Your task to perform on an android device: Set the phone to "Do not disturb". Image 0: 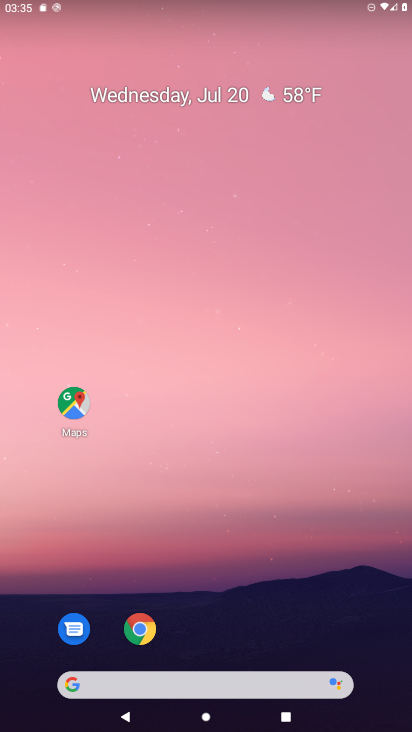
Step 0: drag from (382, 0) to (10, 71)
Your task to perform on an android device: Set the phone to "Do not disturb". Image 1: 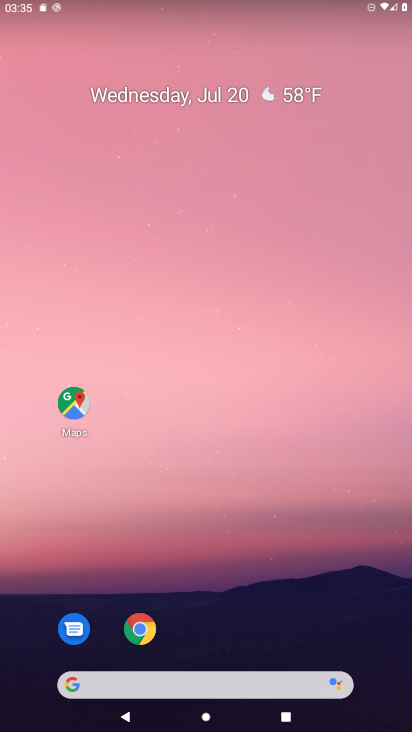
Step 1: drag from (246, 5) to (208, 696)
Your task to perform on an android device: Set the phone to "Do not disturb". Image 2: 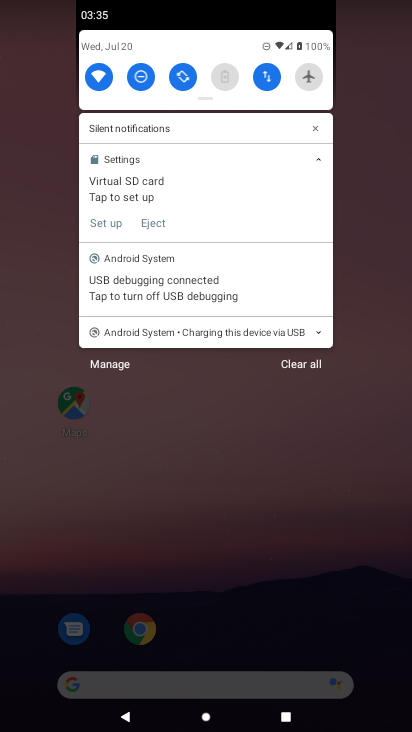
Step 2: click (128, 75)
Your task to perform on an android device: Set the phone to "Do not disturb". Image 3: 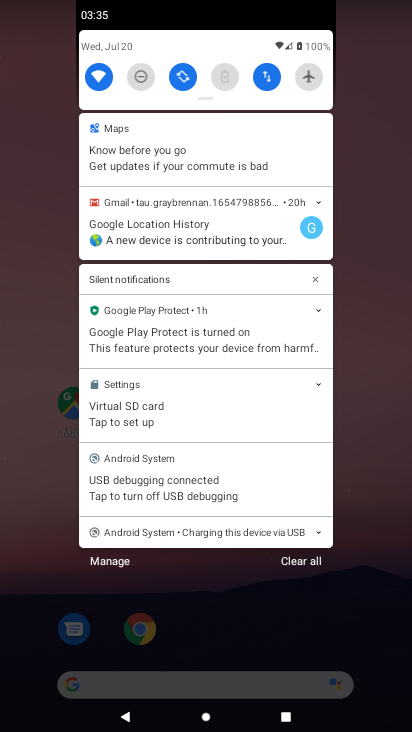
Step 3: click (132, 76)
Your task to perform on an android device: Set the phone to "Do not disturb". Image 4: 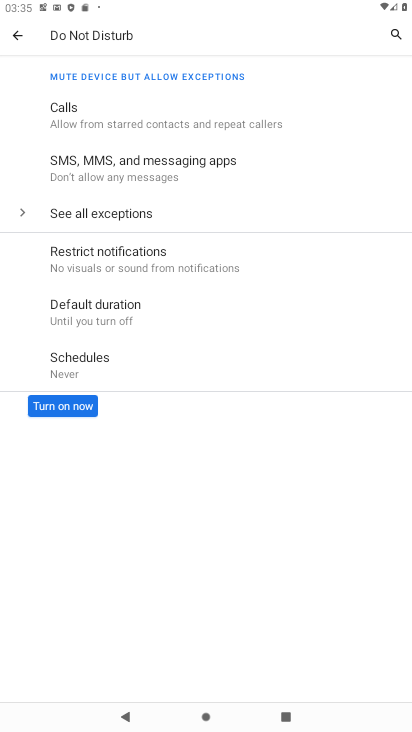
Step 4: press home button
Your task to perform on an android device: Set the phone to "Do not disturb". Image 5: 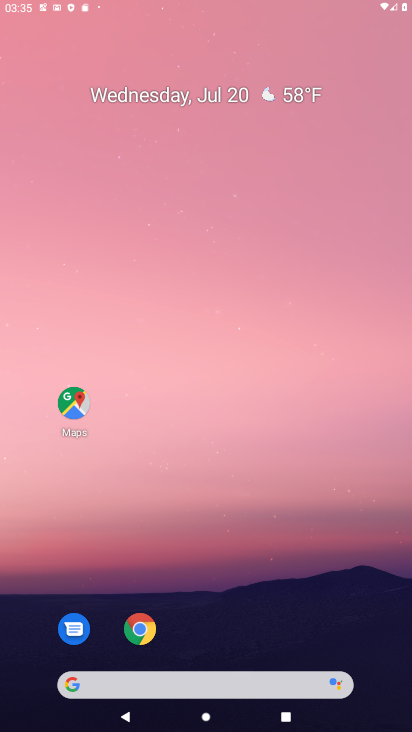
Step 5: drag from (335, 2) to (307, 405)
Your task to perform on an android device: Set the phone to "Do not disturb". Image 6: 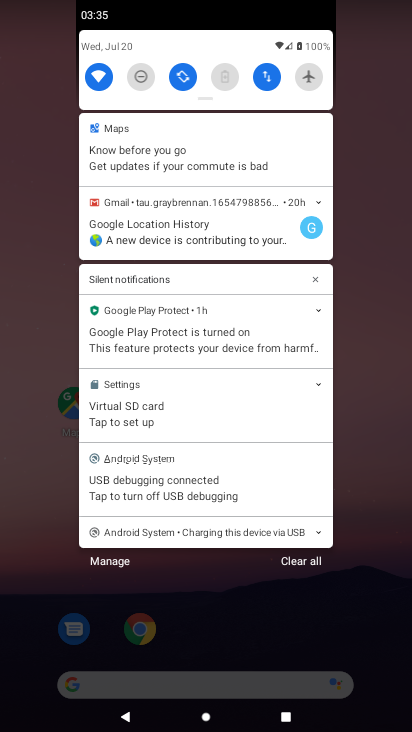
Step 6: click (128, 85)
Your task to perform on an android device: Set the phone to "Do not disturb". Image 7: 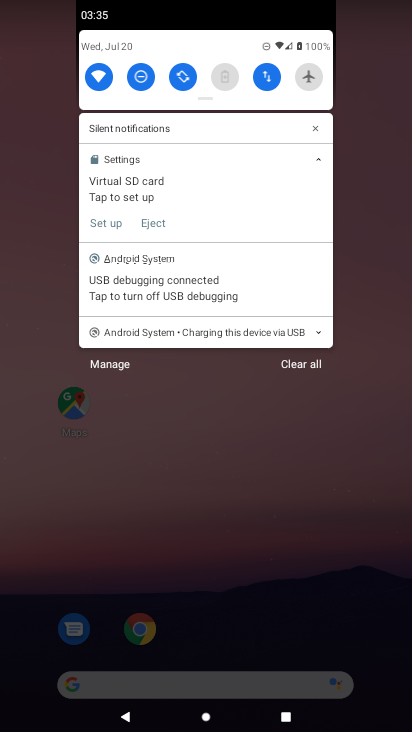
Step 7: task complete